Your task to perform on an android device: Go to Yahoo.com Image 0: 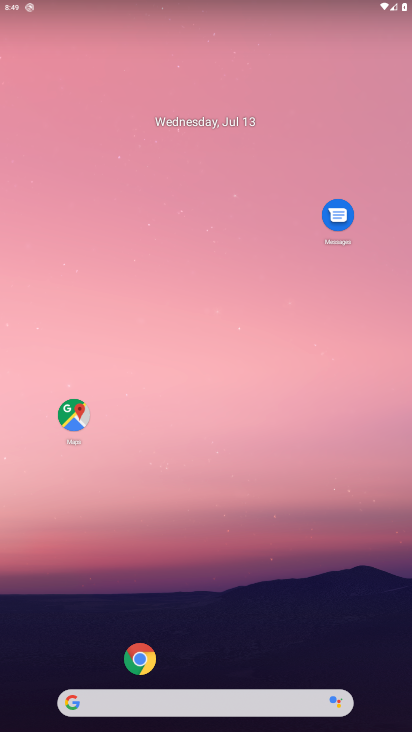
Step 0: click (104, 708)
Your task to perform on an android device: Go to Yahoo.com Image 1: 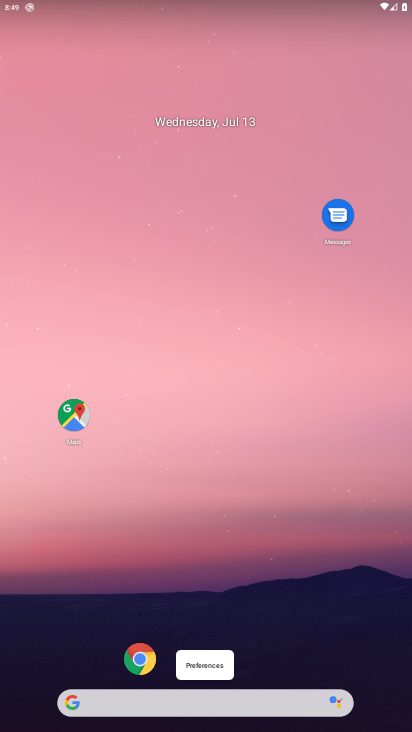
Step 1: click (100, 700)
Your task to perform on an android device: Go to Yahoo.com Image 2: 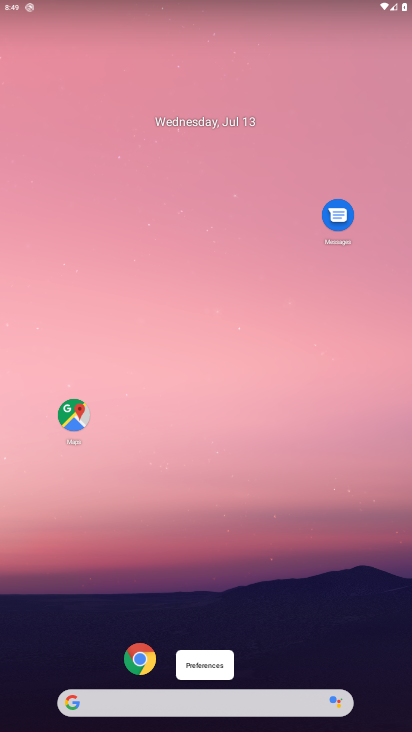
Step 2: click (147, 696)
Your task to perform on an android device: Go to Yahoo.com Image 3: 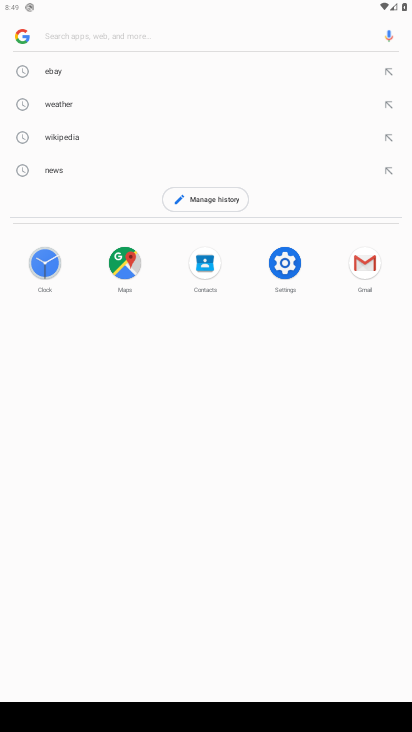
Step 3: type " Yahoo.com"
Your task to perform on an android device: Go to Yahoo.com Image 4: 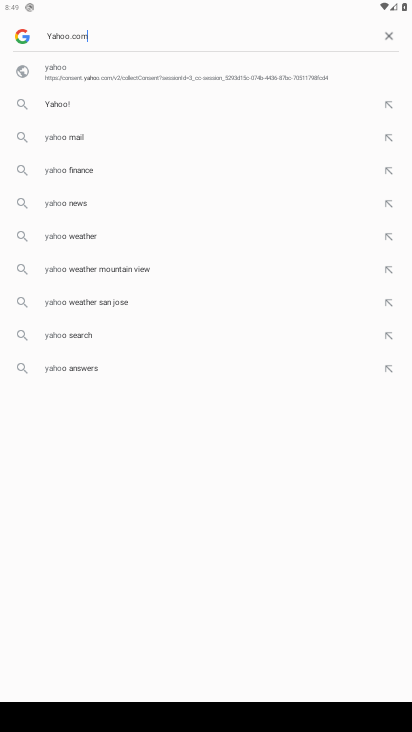
Step 4: type ""
Your task to perform on an android device: Go to Yahoo.com Image 5: 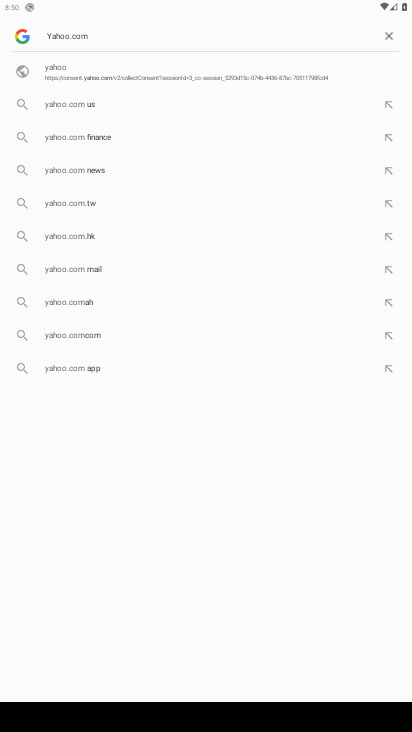
Step 5: task complete